Your task to perform on an android device: refresh tabs in the chrome app Image 0: 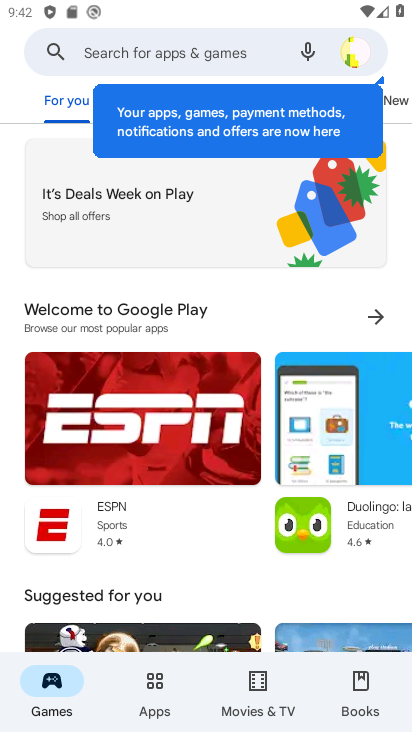
Step 0: press home button
Your task to perform on an android device: refresh tabs in the chrome app Image 1: 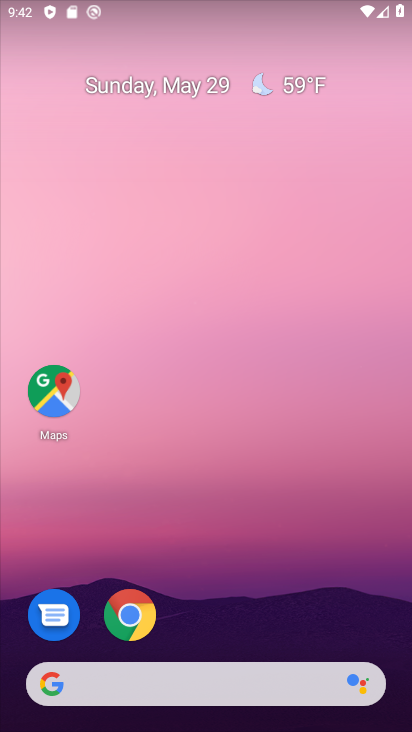
Step 1: click (132, 621)
Your task to perform on an android device: refresh tabs in the chrome app Image 2: 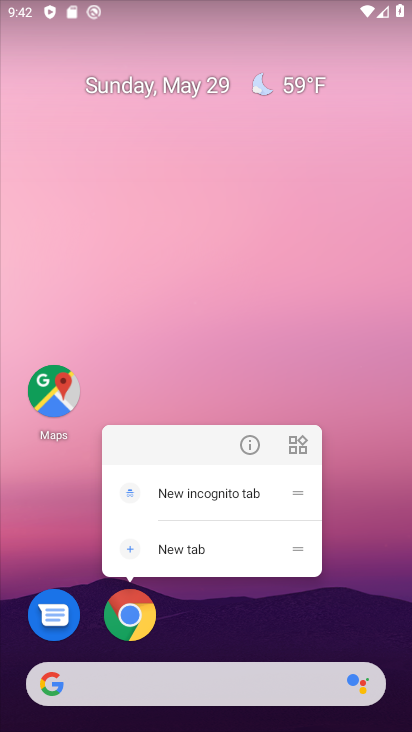
Step 2: click (129, 615)
Your task to perform on an android device: refresh tabs in the chrome app Image 3: 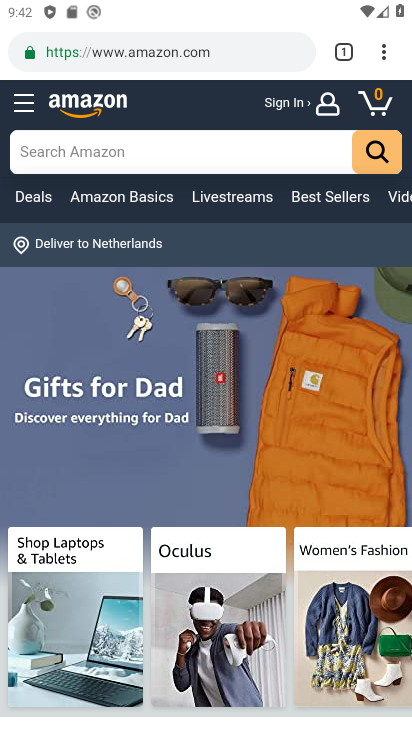
Step 3: click (379, 45)
Your task to perform on an android device: refresh tabs in the chrome app Image 4: 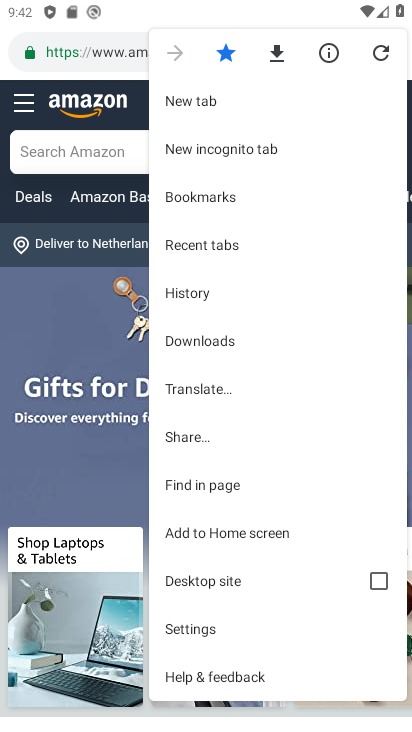
Step 4: click (379, 55)
Your task to perform on an android device: refresh tabs in the chrome app Image 5: 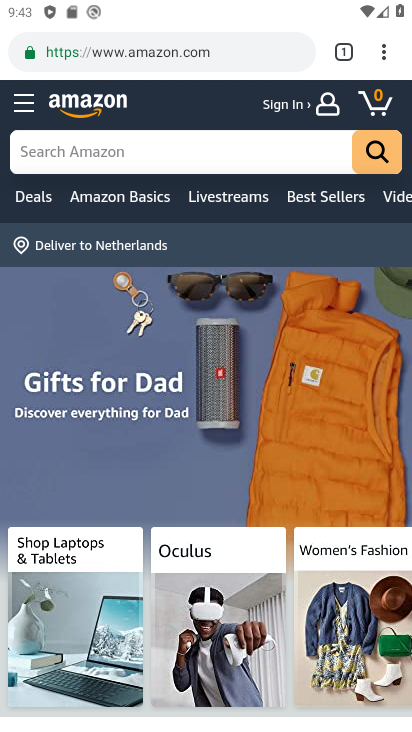
Step 5: task complete